Your task to perform on an android device: change the clock display to digital Image 0: 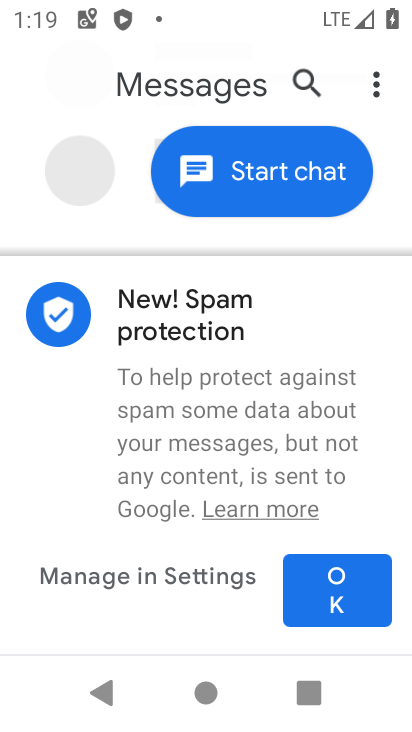
Step 0: press home button
Your task to perform on an android device: change the clock display to digital Image 1: 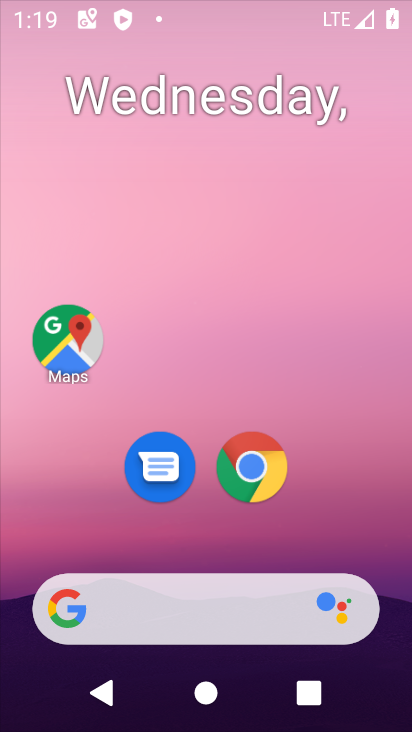
Step 1: drag from (223, 535) to (257, 68)
Your task to perform on an android device: change the clock display to digital Image 2: 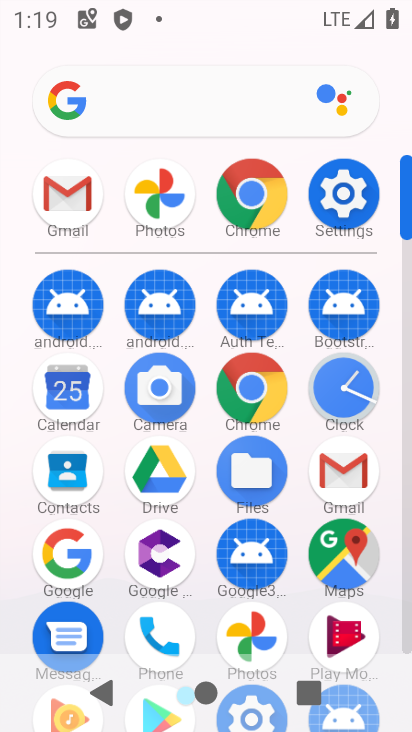
Step 2: click (339, 382)
Your task to perform on an android device: change the clock display to digital Image 3: 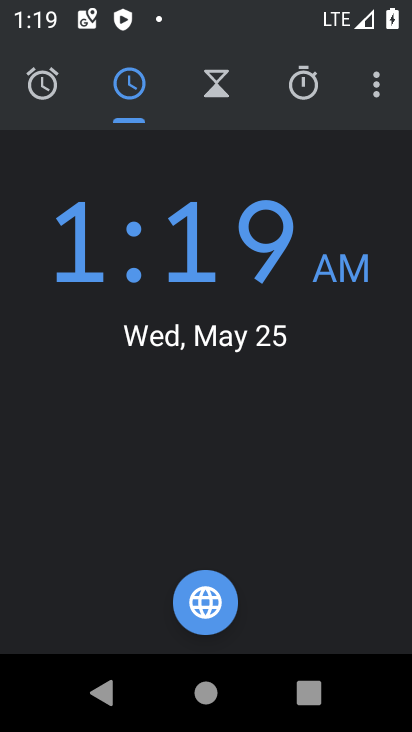
Step 3: click (369, 80)
Your task to perform on an android device: change the clock display to digital Image 4: 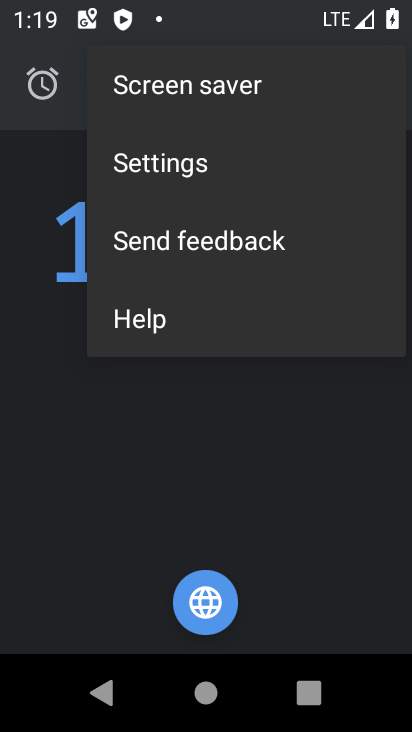
Step 4: click (200, 170)
Your task to perform on an android device: change the clock display to digital Image 5: 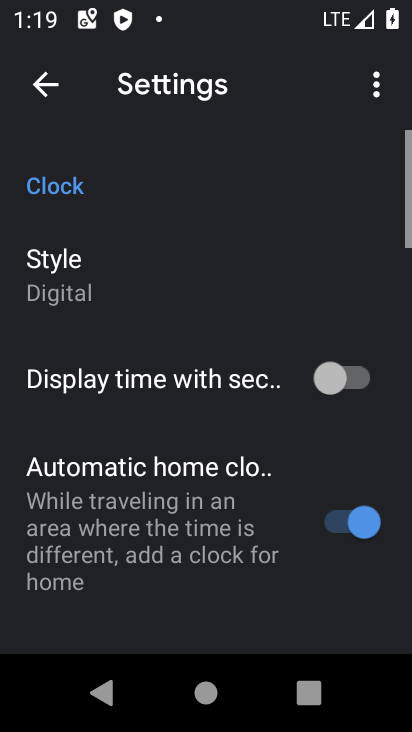
Step 5: click (60, 266)
Your task to perform on an android device: change the clock display to digital Image 6: 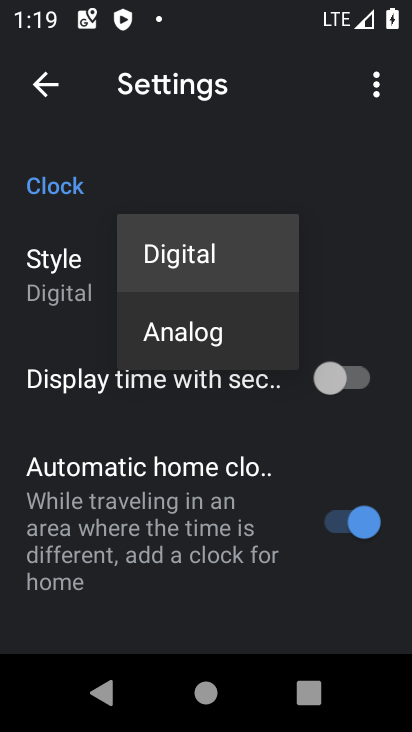
Step 6: click (192, 260)
Your task to perform on an android device: change the clock display to digital Image 7: 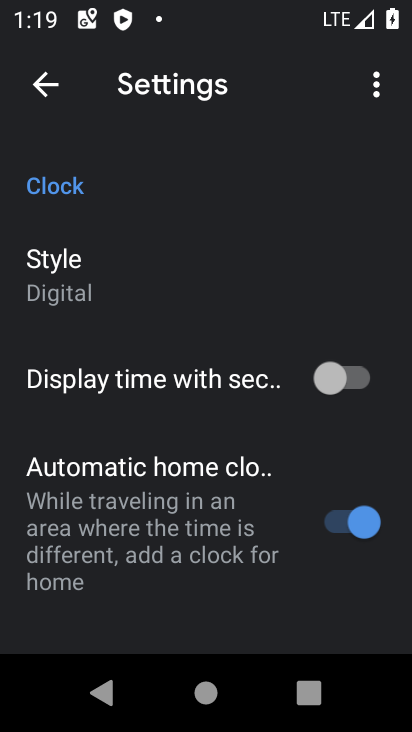
Step 7: task complete